Your task to perform on an android device: turn off notifications settings in the gmail app Image 0: 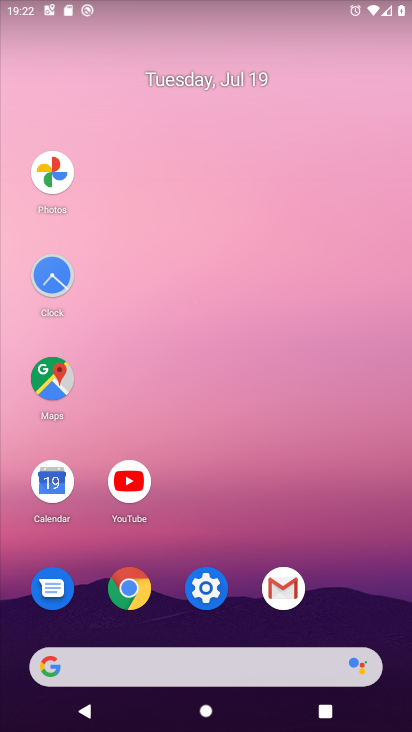
Step 0: click (286, 588)
Your task to perform on an android device: turn off notifications settings in the gmail app Image 1: 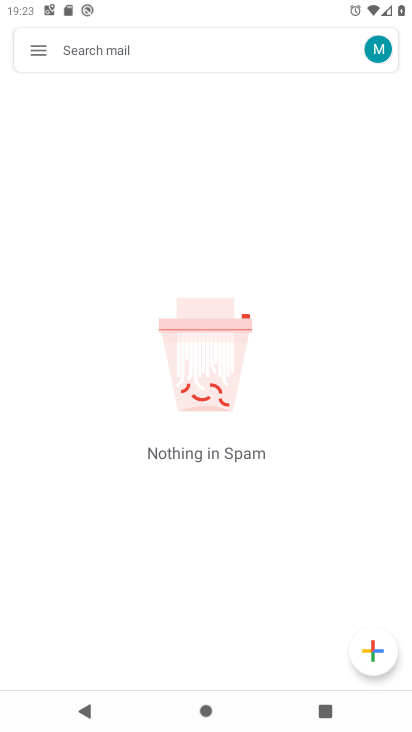
Step 1: click (38, 53)
Your task to perform on an android device: turn off notifications settings in the gmail app Image 2: 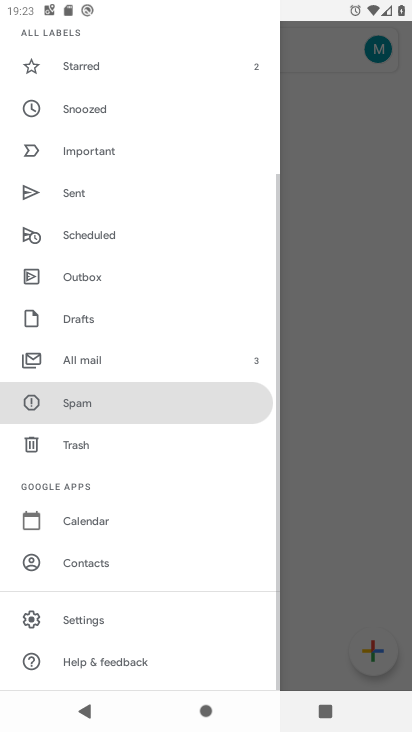
Step 2: drag from (151, 613) to (138, 316)
Your task to perform on an android device: turn off notifications settings in the gmail app Image 3: 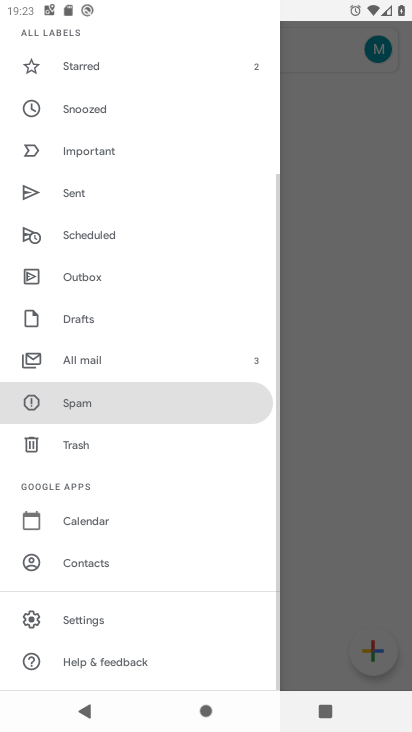
Step 3: click (79, 618)
Your task to perform on an android device: turn off notifications settings in the gmail app Image 4: 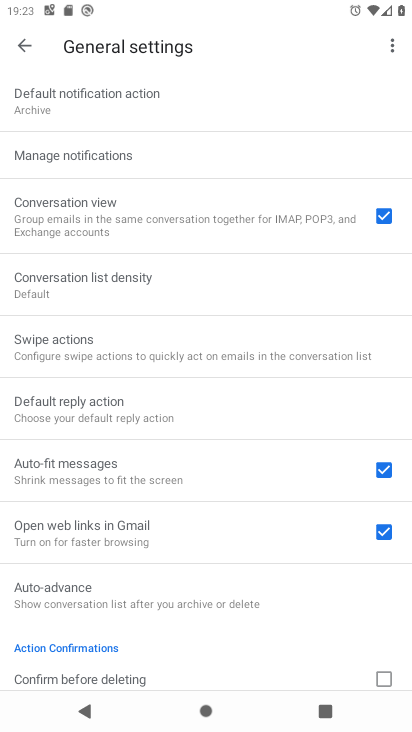
Step 4: click (66, 152)
Your task to perform on an android device: turn off notifications settings in the gmail app Image 5: 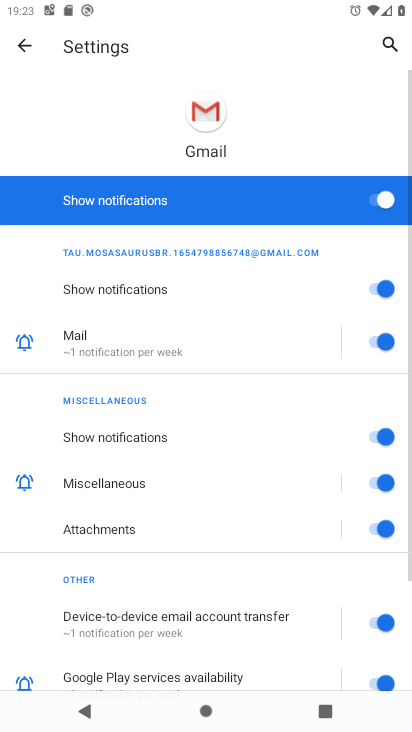
Step 5: click (384, 196)
Your task to perform on an android device: turn off notifications settings in the gmail app Image 6: 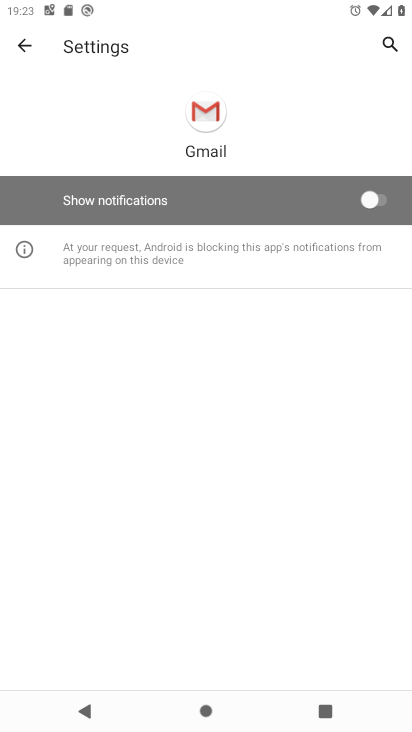
Step 6: task complete